Your task to perform on an android device: What's the weather? Image 0: 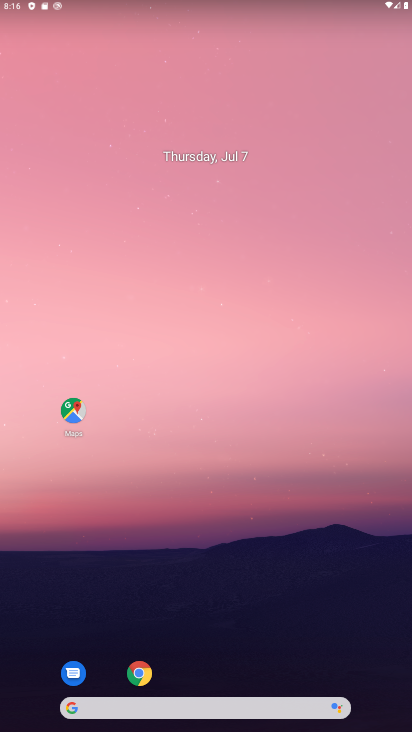
Step 0: click (215, 700)
Your task to perform on an android device: What's the weather? Image 1: 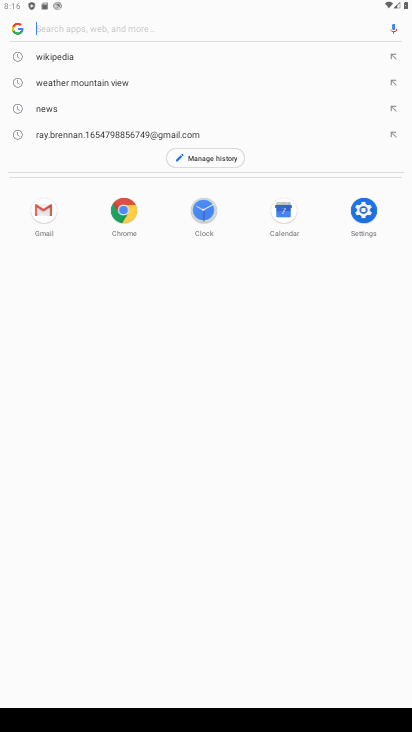
Step 1: click (46, 85)
Your task to perform on an android device: What's the weather? Image 2: 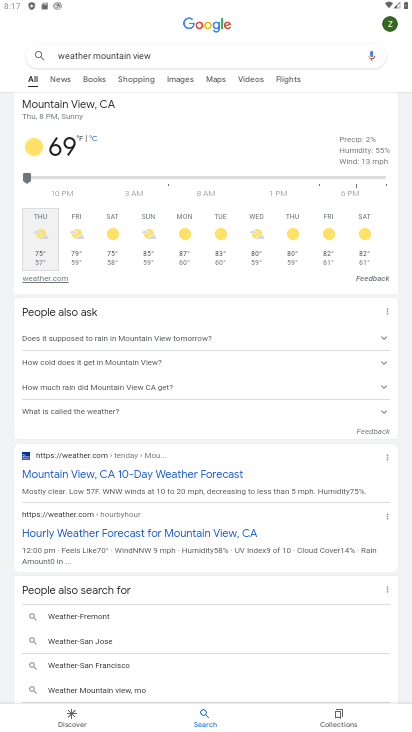
Step 2: task complete